Your task to perform on an android device: Clear the cart on bestbuy. Image 0: 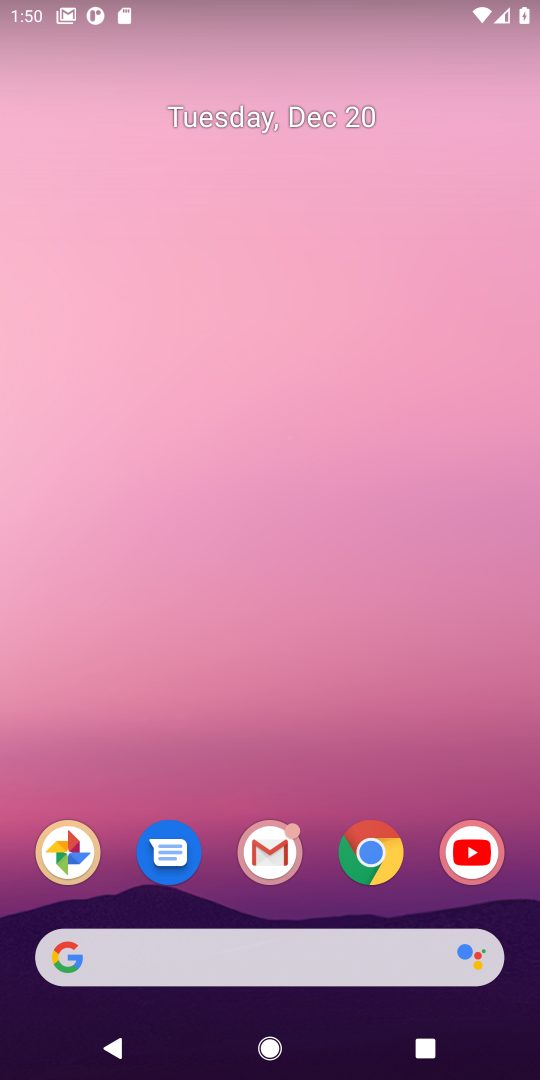
Step 0: click (360, 848)
Your task to perform on an android device: Clear the cart on bestbuy. Image 1: 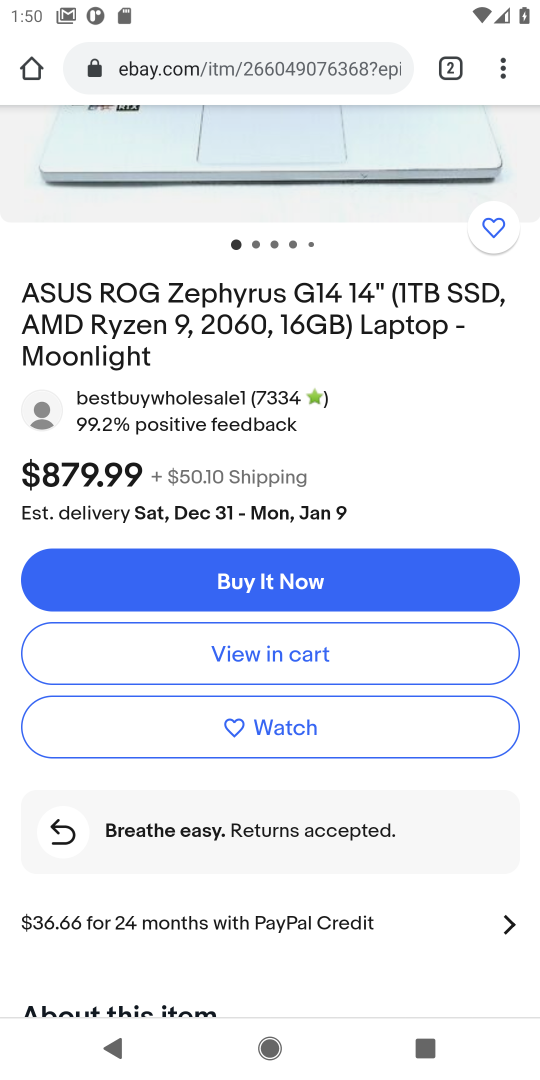
Step 1: click (243, 74)
Your task to perform on an android device: Clear the cart on bestbuy. Image 2: 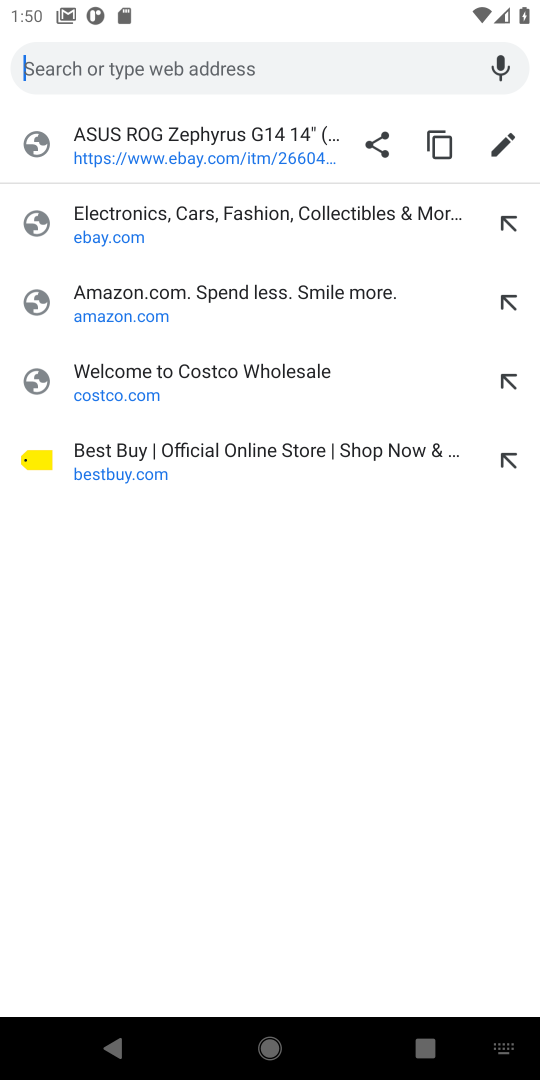
Step 2: click (86, 455)
Your task to perform on an android device: Clear the cart on bestbuy. Image 3: 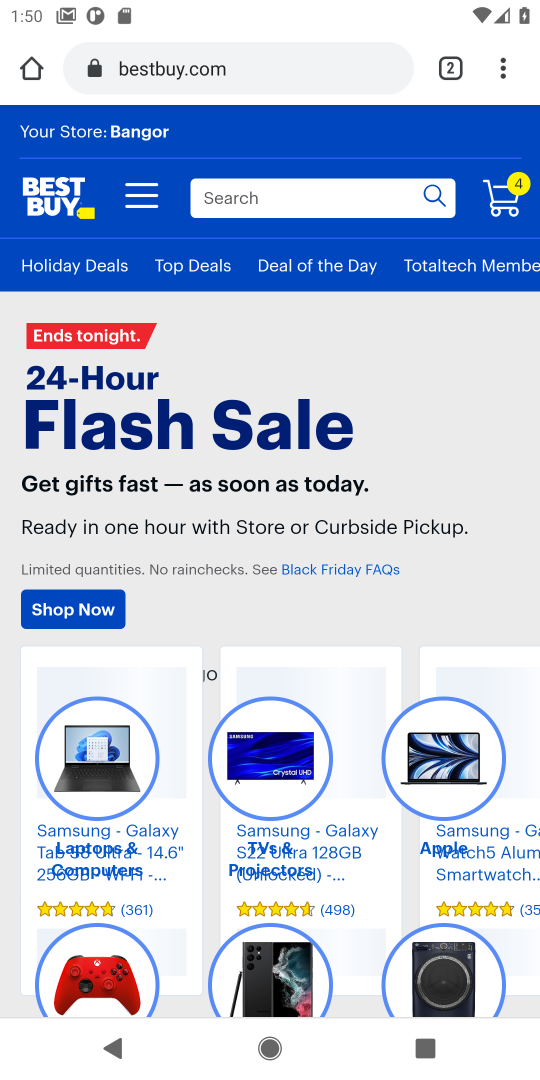
Step 3: click (502, 212)
Your task to perform on an android device: Clear the cart on bestbuy. Image 4: 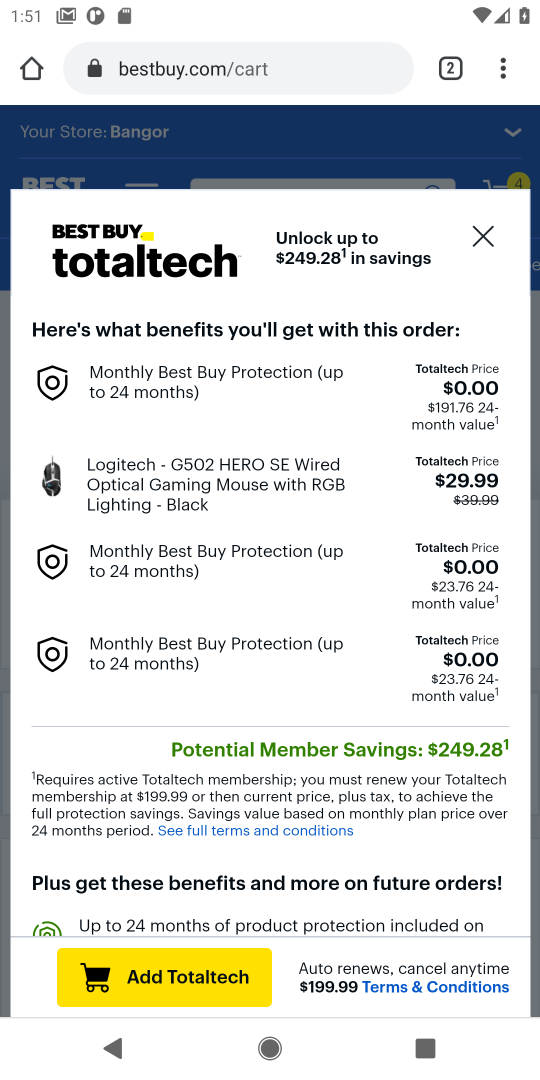
Step 4: click (480, 239)
Your task to perform on an android device: Clear the cart on bestbuy. Image 5: 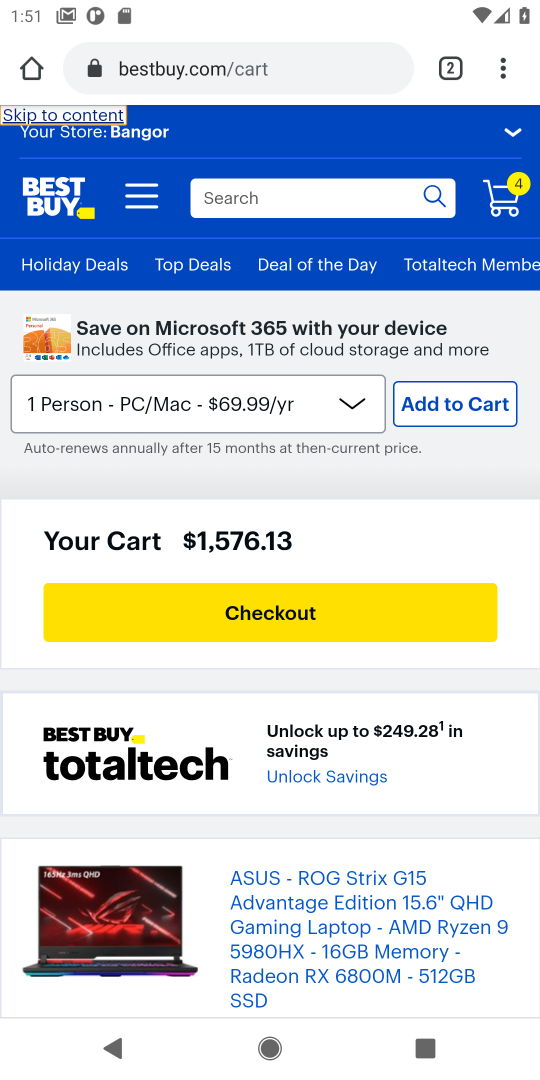
Step 5: drag from (268, 567) to (281, 144)
Your task to perform on an android device: Clear the cart on bestbuy. Image 6: 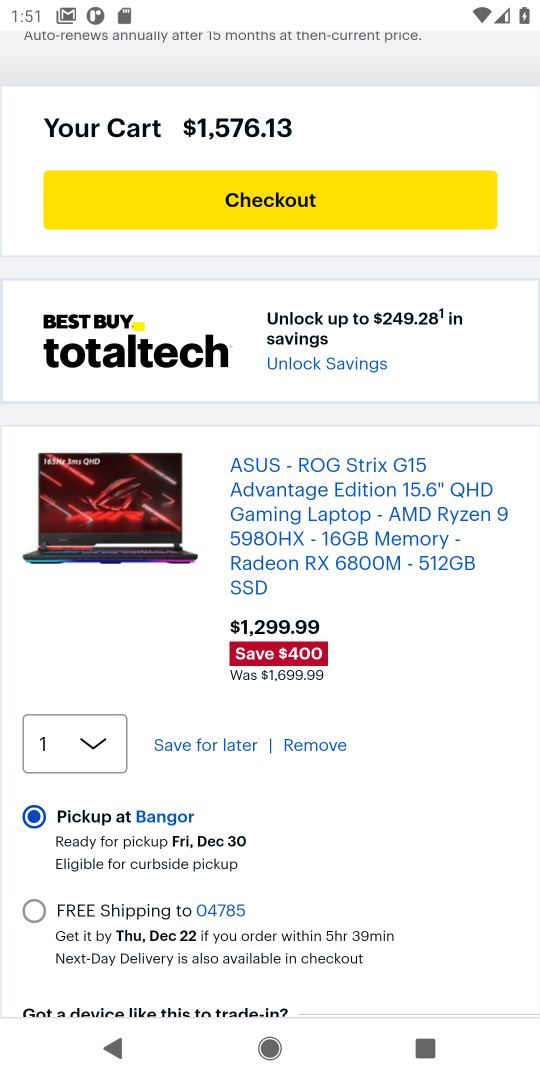
Step 6: click (311, 744)
Your task to perform on an android device: Clear the cart on bestbuy. Image 7: 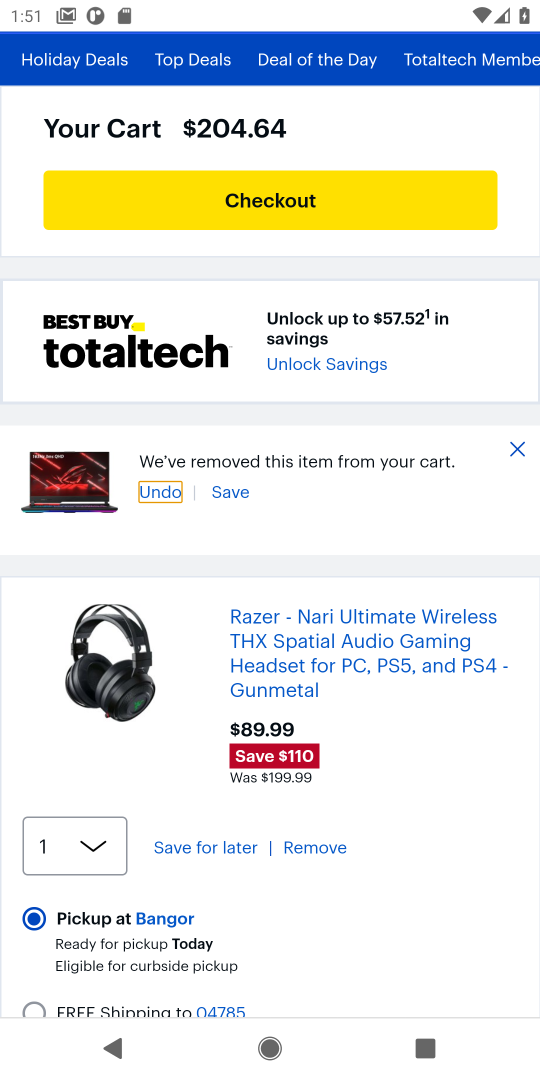
Step 7: click (305, 849)
Your task to perform on an android device: Clear the cart on bestbuy. Image 8: 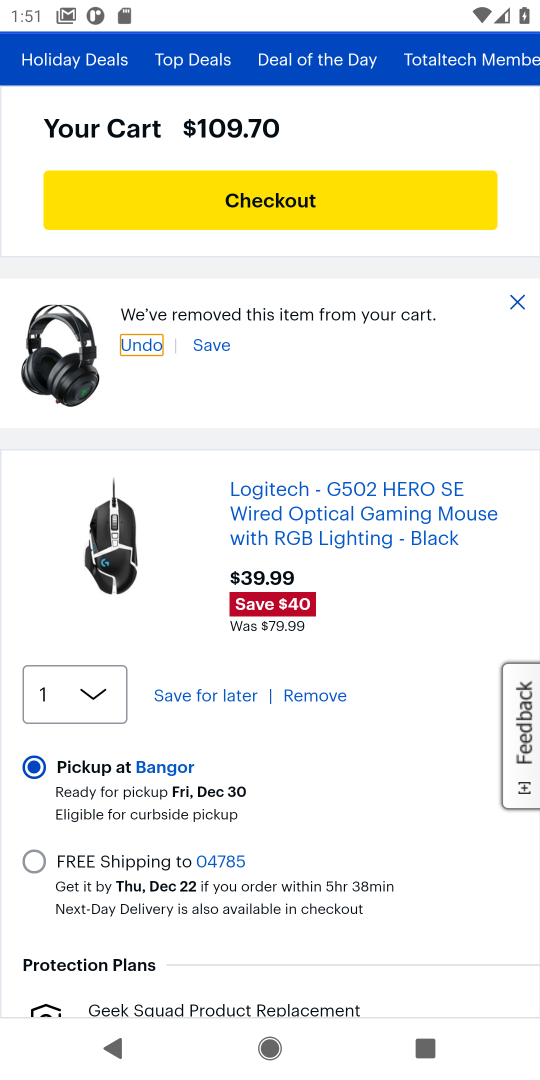
Step 8: click (310, 703)
Your task to perform on an android device: Clear the cart on bestbuy. Image 9: 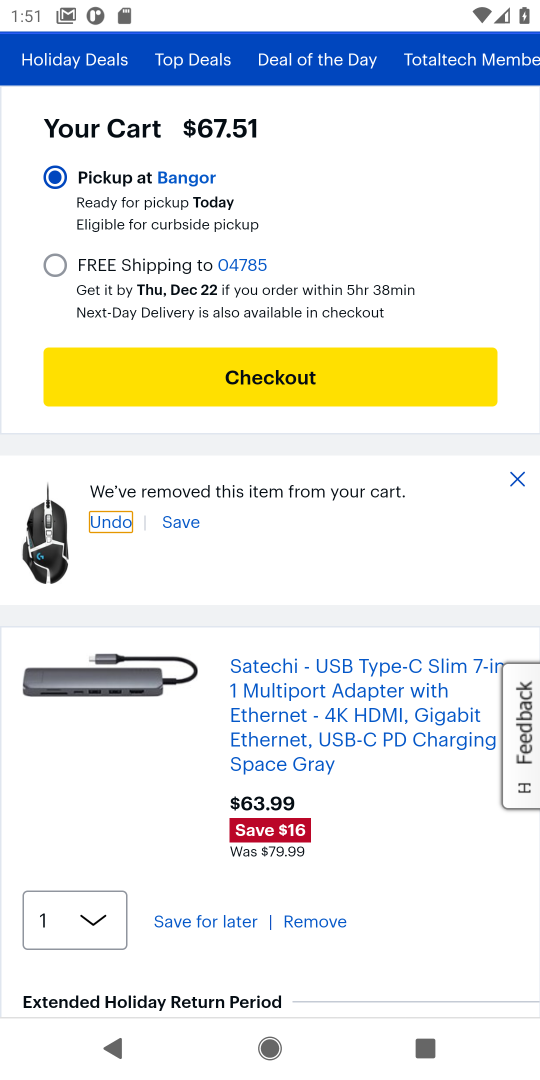
Step 9: click (299, 923)
Your task to perform on an android device: Clear the cart on bestbuy. Image 10: 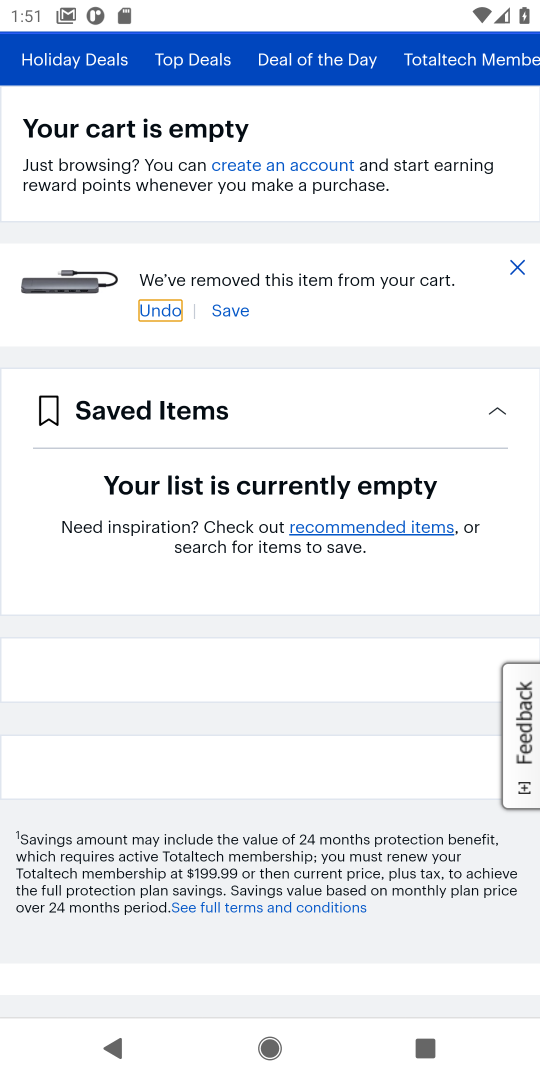
Step 10: task complete